Your task to perform on an android device: see tabs open on other devices in the chrome app Image 0: 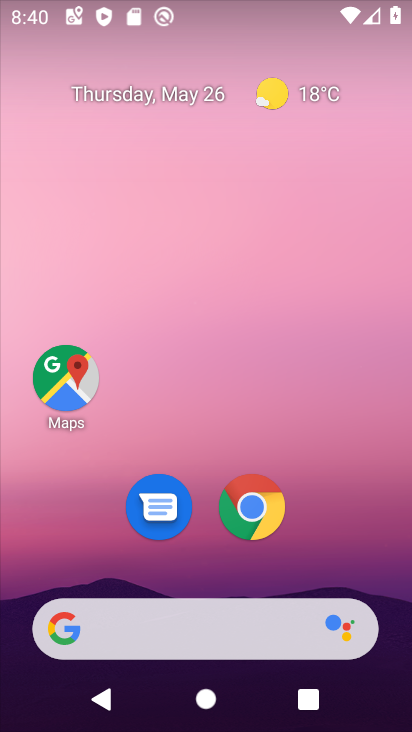
Step 0: drag from (234, 660) to (152, 77)
Your task to perform on an android device: see tabs open on other devices in the chrome app Image 1: 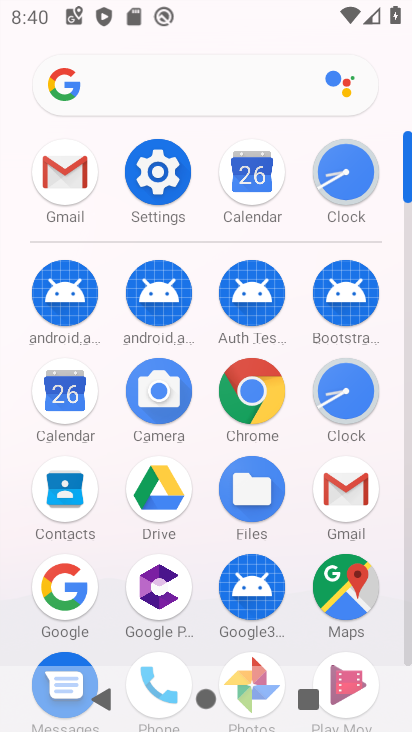
Step 1: click (261, 391)
Your task to perform on an android device: see tabs open on other devices in the chrome app Image 2: 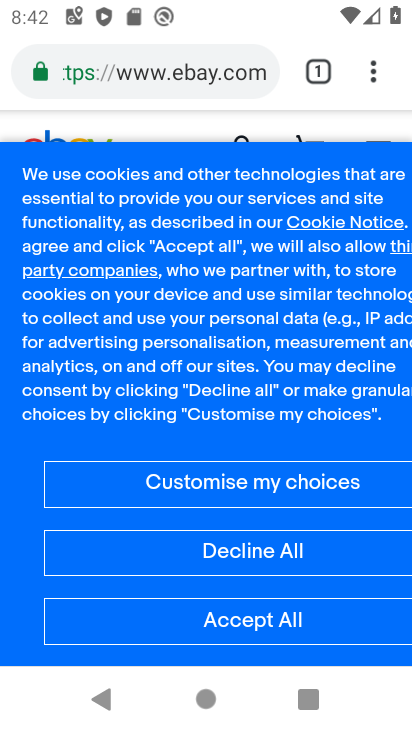
Step 2: click (323, 76)
Your task to perform on an android device: see tabs open on other devices in the chrome app Image 3: 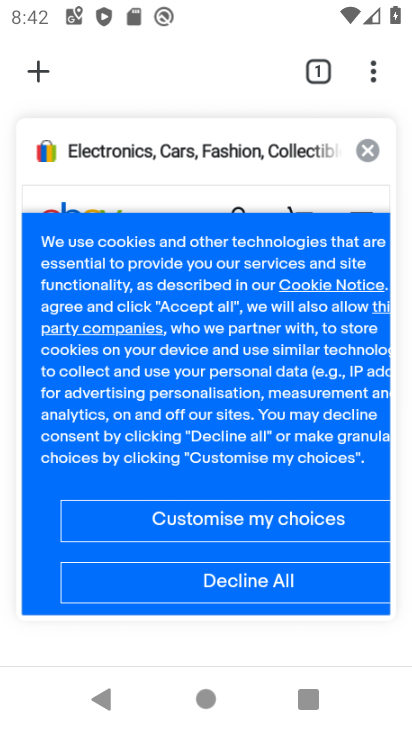
Step 3: click (47, 59)
Your task to perform on an android device: see tabs open on other devices in the chrome app Image 4: 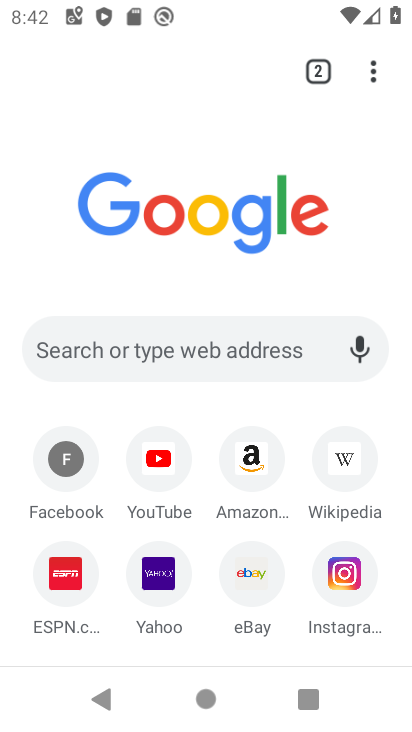
Step 4: task complete